Your task to perform on an android device: Open Reddit.com Image 0: 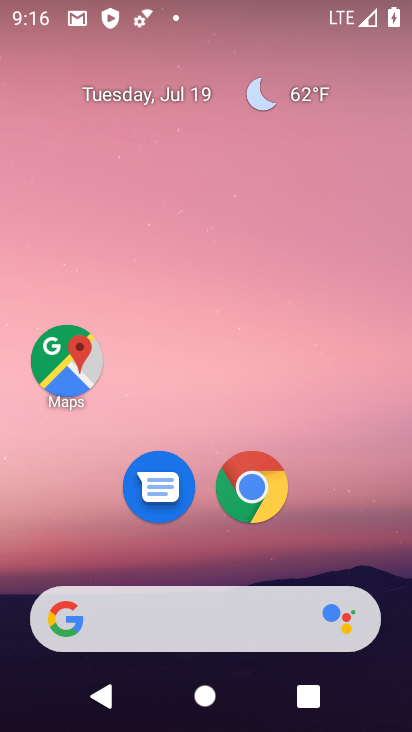
Step 0: click (256, 486)
Your task to perform on an android device: Open Reddit.com Image 1: 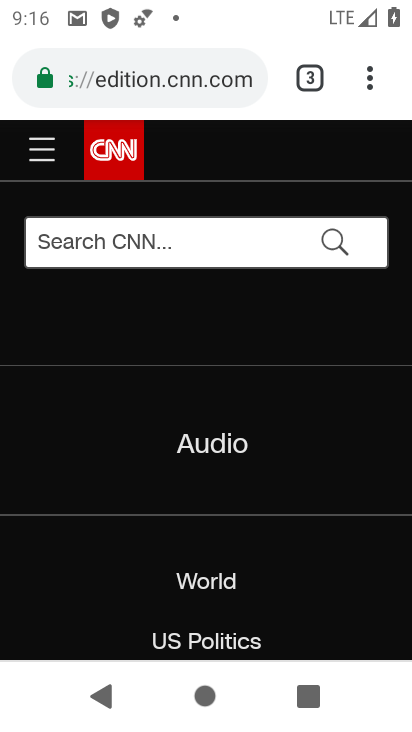
Step 1: click (315, 76)
Your task to perform on an android device: Open Reddit.com Image 2: 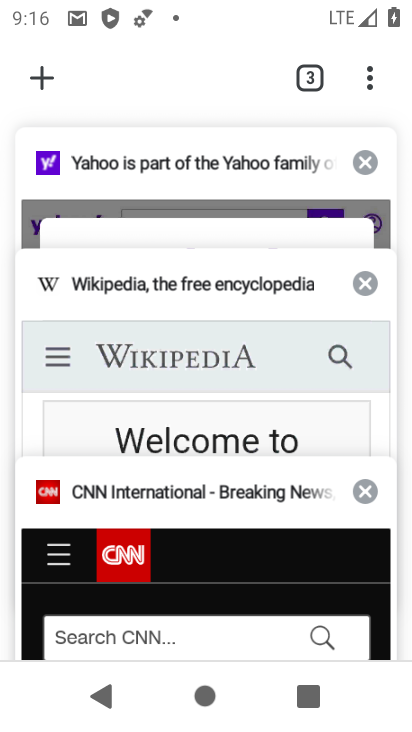
Step 2: click (55, 64)
Your task to perform on an android device: Open Reddit.com Image 3: 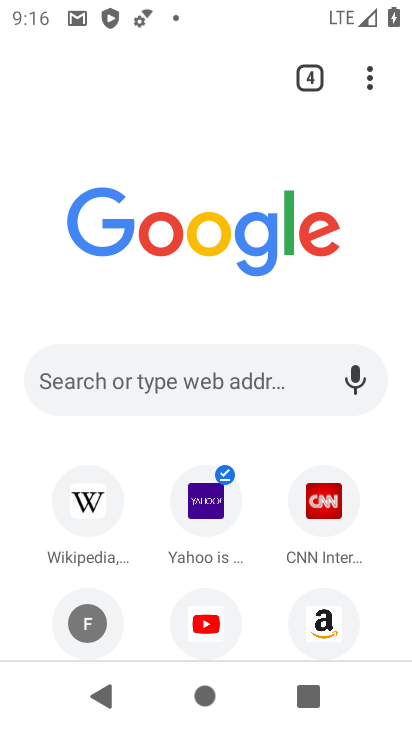
Step 3: click (107, 385)
Your task to perform on an android device: Open Reddit.com Image 4: 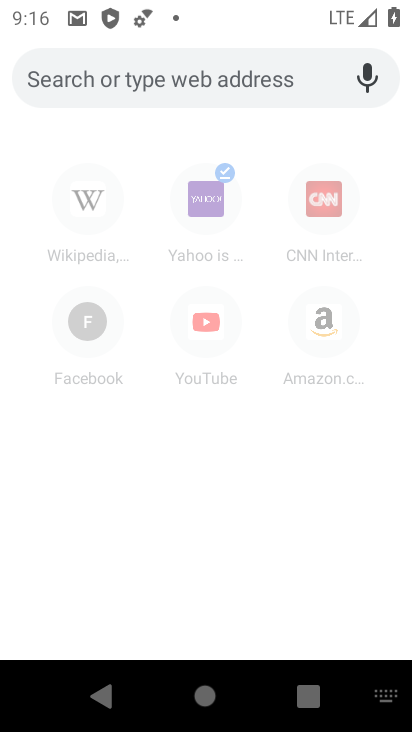
Step 4: type "reddit.cpm"
Your task to perform on an android device: Open Reddit.com Image 5: 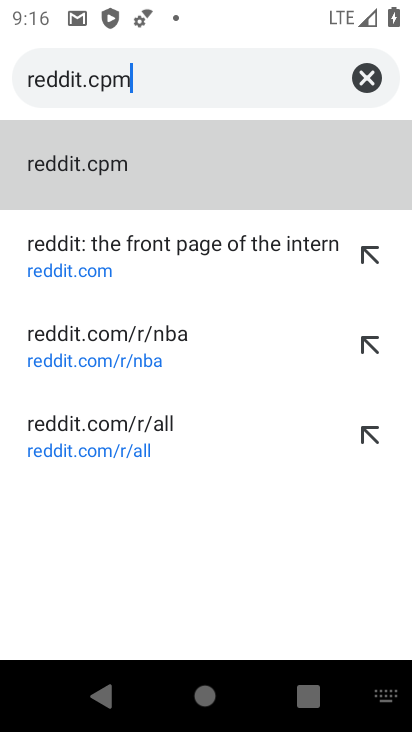
Step 5: click (147, 257)
Your task to perform on an android device: Open Reddit.com Image 6: 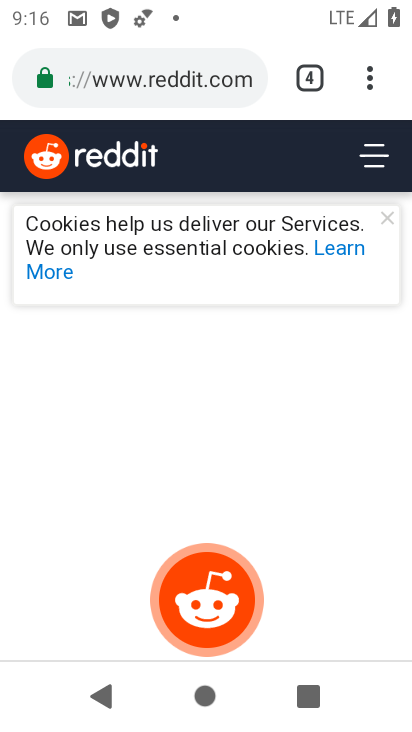
Step 6: task complete